Your task to perform on an android device: turn on javascript in the chrome app Image 0: 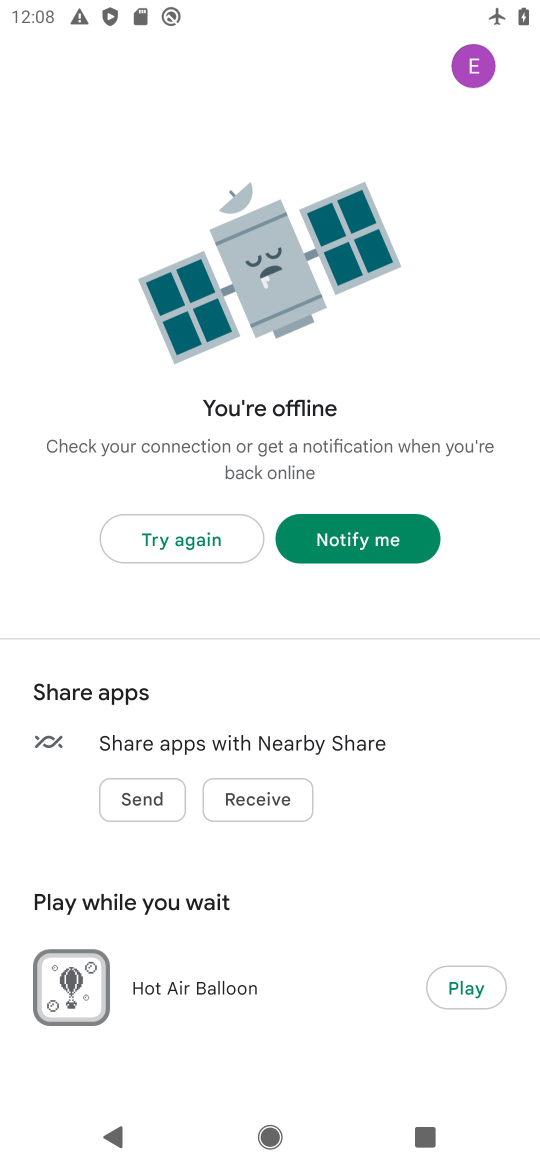
Step 0: press back button
Your task to perform on an android device: turn on javascript in the chrome app Image 1: 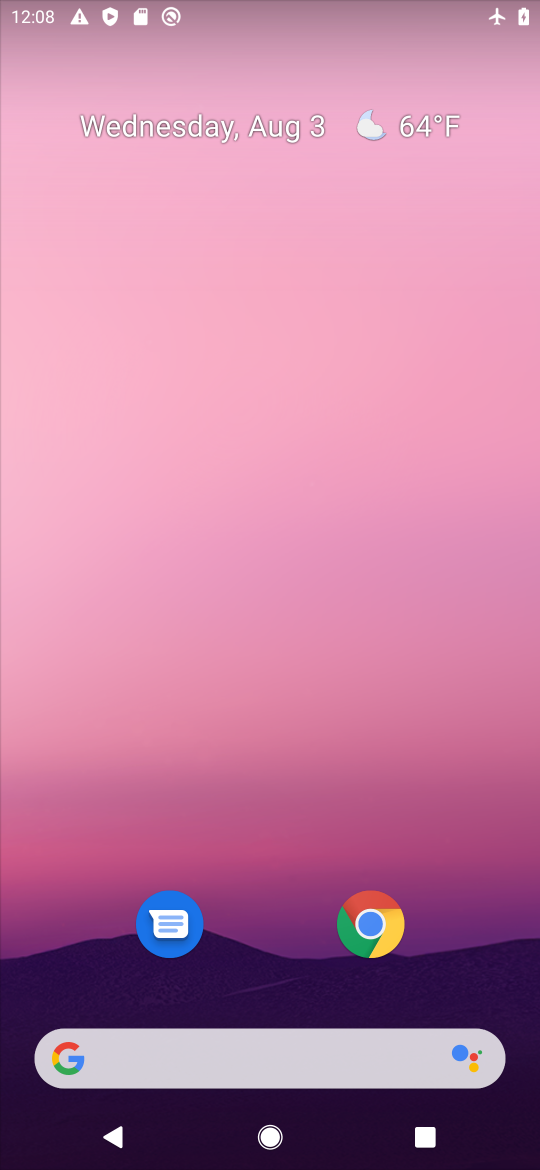
Step 1: click (374, 916)
Your task to perform on an android device: turn on javascript in the chrome app Image 2: 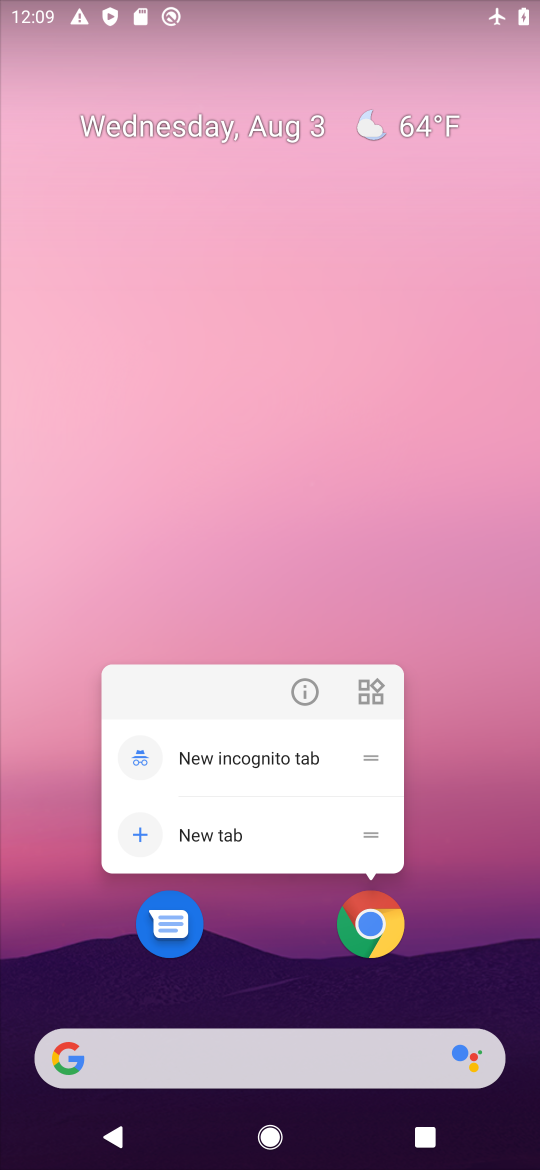
Step 2: click (369, 918)
Your task to perform on an android device: turn on javascript in the chrome app Image 3: 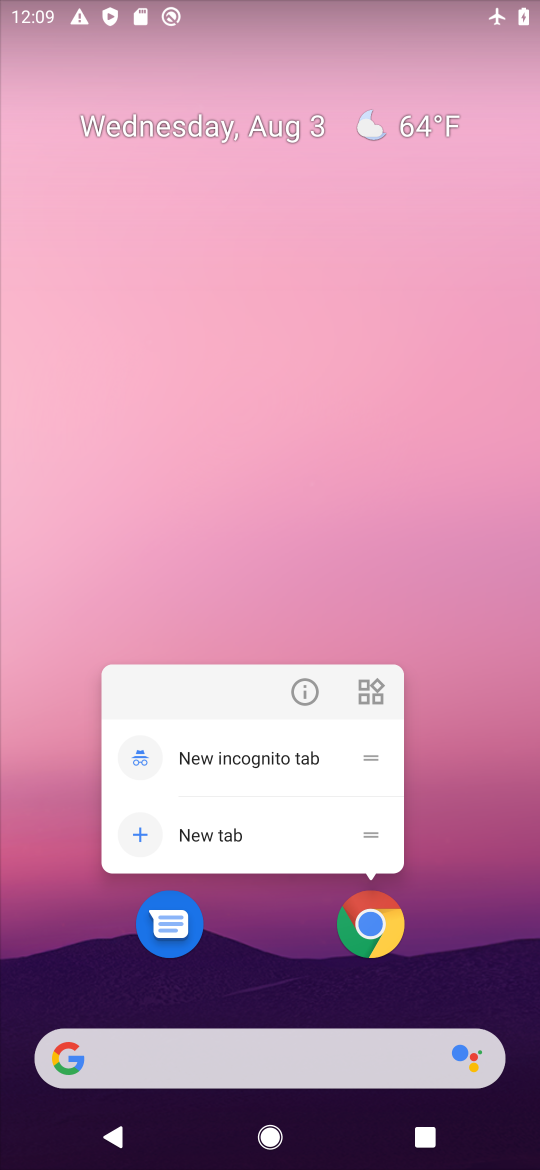
Step 3: click (371, 921)
Your task to perform on an android device: turn on javascript in the chrome app Image 4: 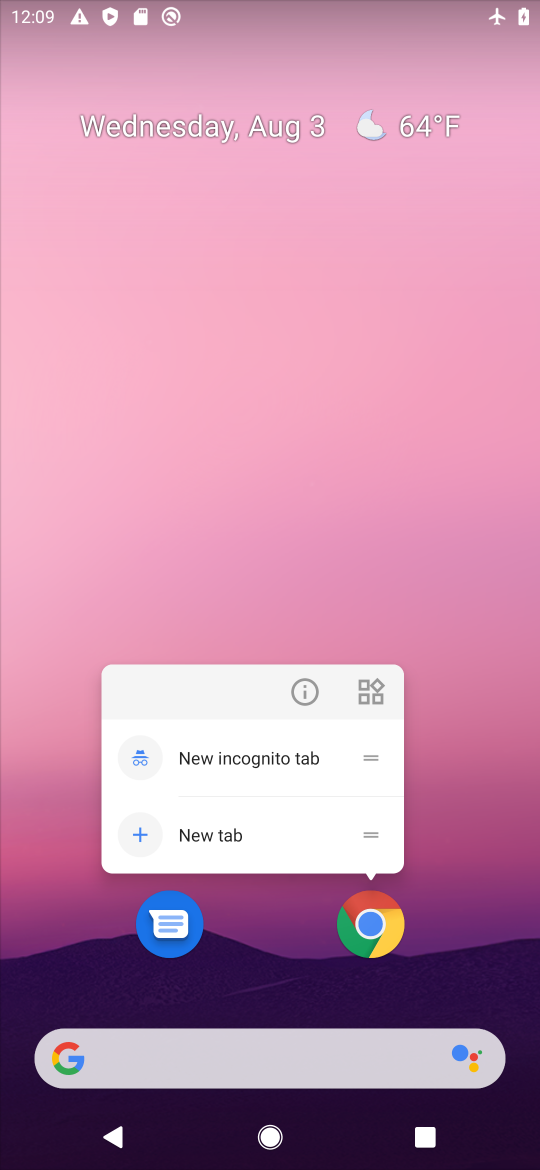
Step 4: click (378, 925)
Your task to perform on an android device: turn on javascript in the chrome app Image 5: 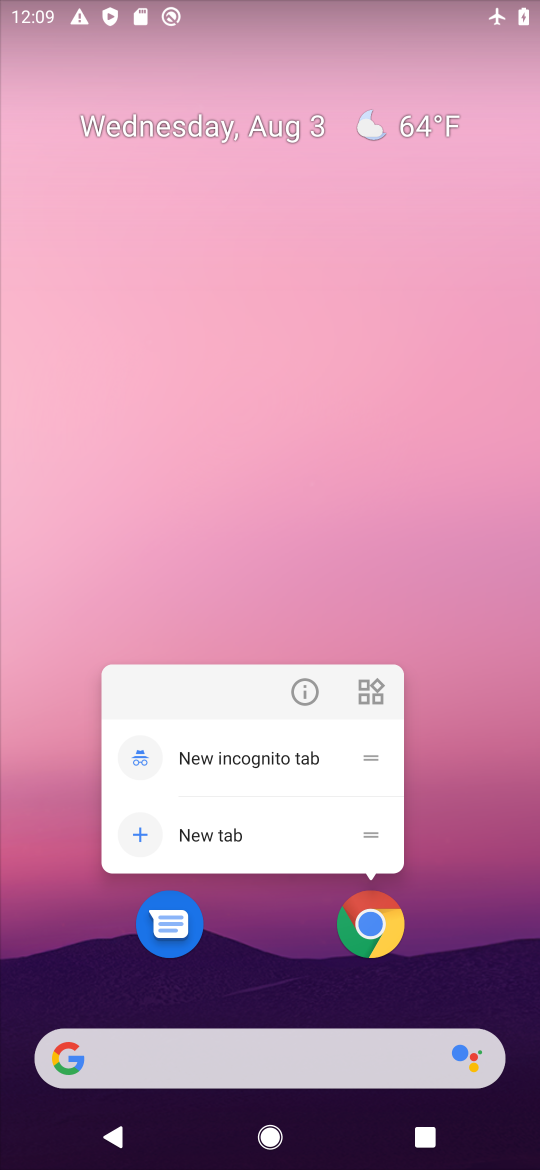
Step 5: click (375, 923)
Your task to perform on an android device: turn on javascript in the chrome app Image 6: 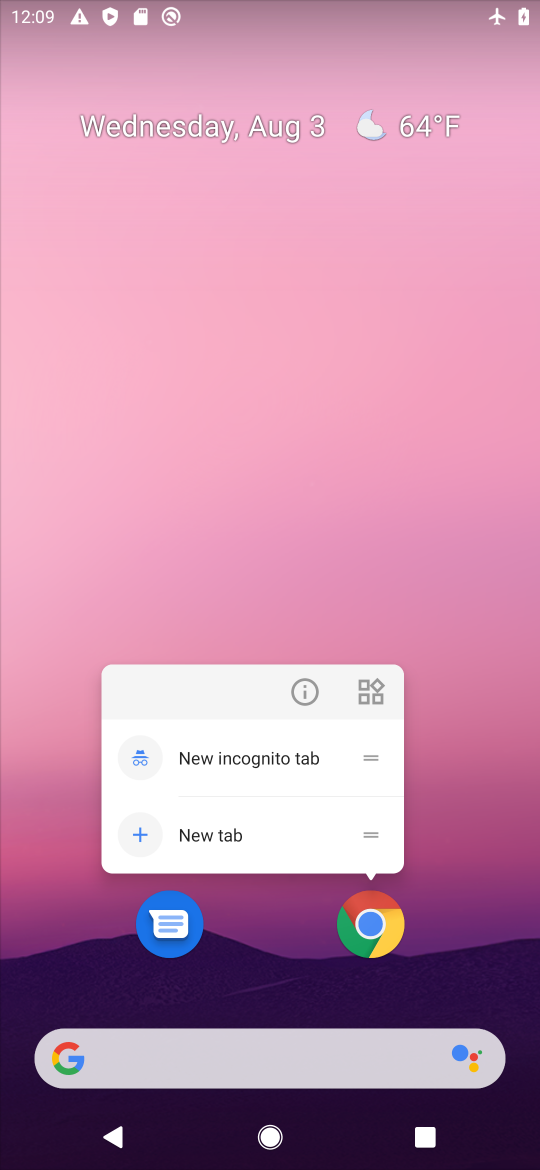
Step 6: click (371, 922)
Your task to perform on an android device: turn on javascript in the chrome app Image 7: 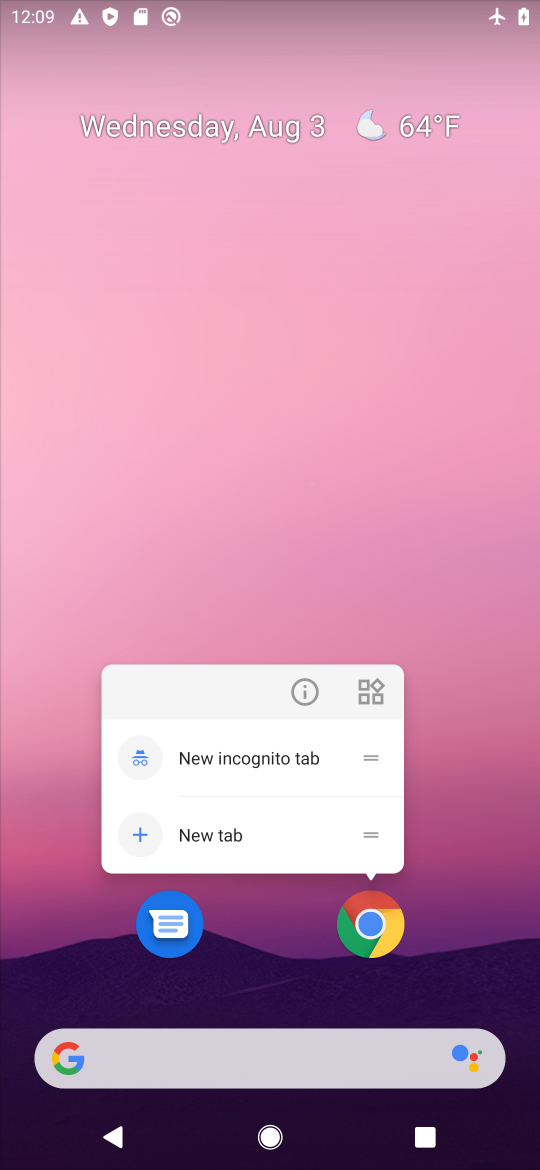
Step 7: click (372, 925)
Your task to perform on an android device: turn on javascript in the chrome app Image 8: 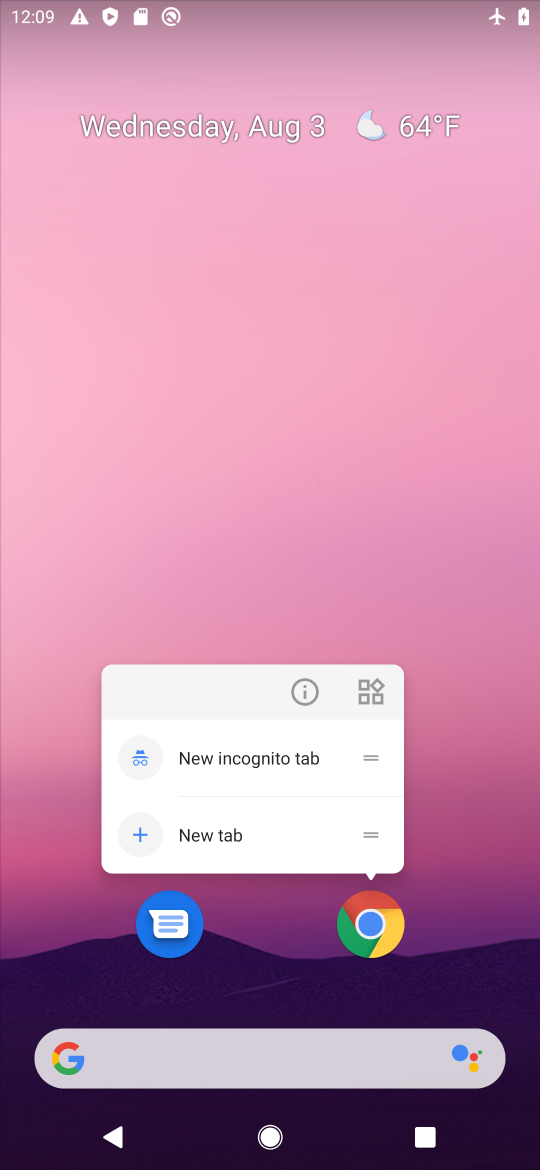
Step 8: click (380, 922)
Your task to perform on an android device: turn on javascript in the chrome app Image 9: 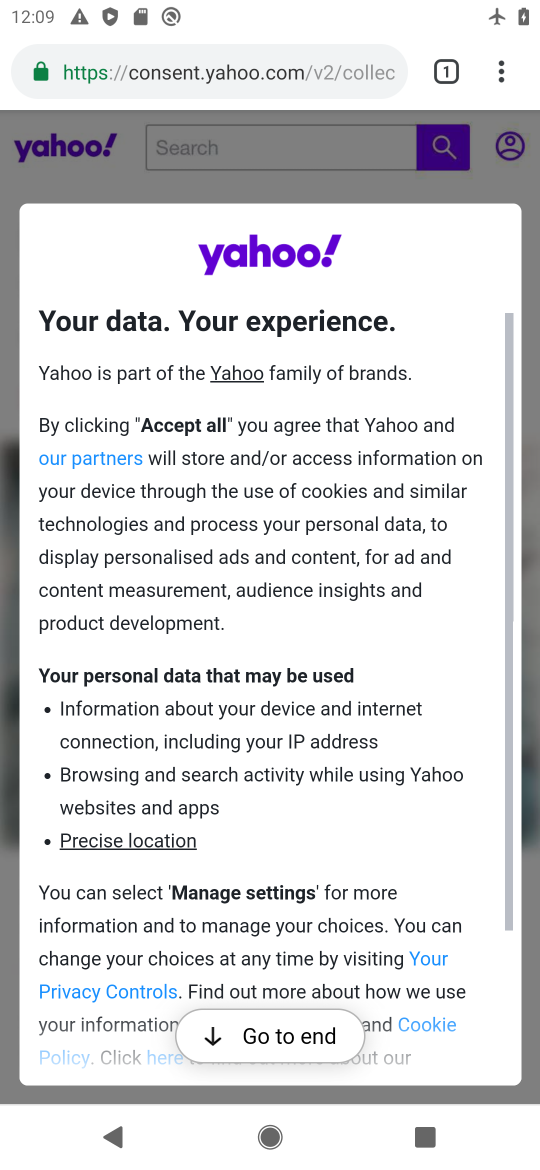
Step 9: drag from (506, 68) to (274, 793)
Your task to perform on an android device: turn on javascript in the chrome app Image 10: 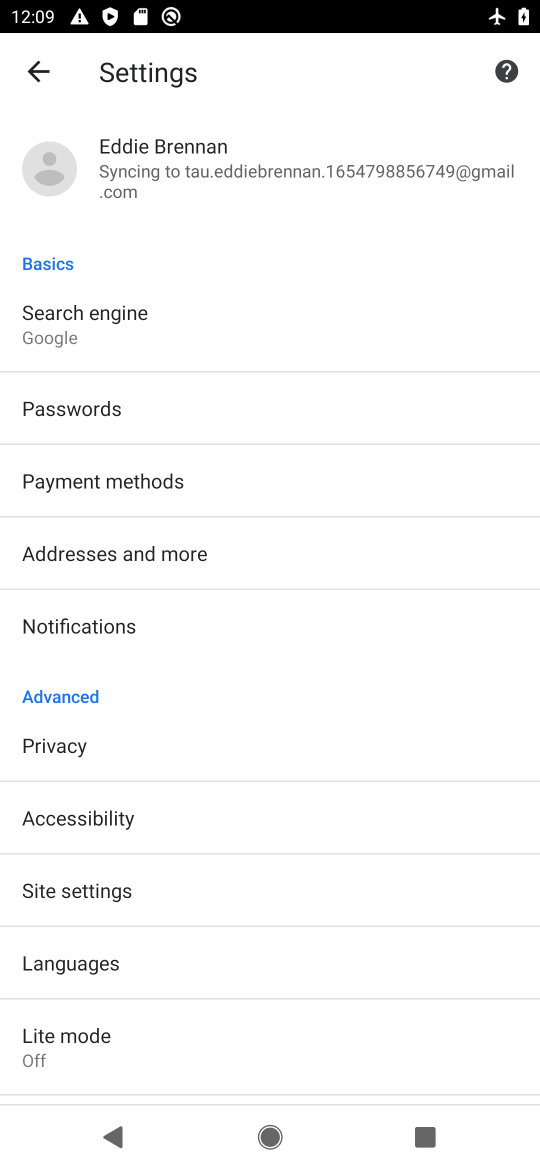
Step 10: drag from (104, 1038) to (188, 501)
Your task to perform on an android device: turn on javascript in the chrome app Image 11: 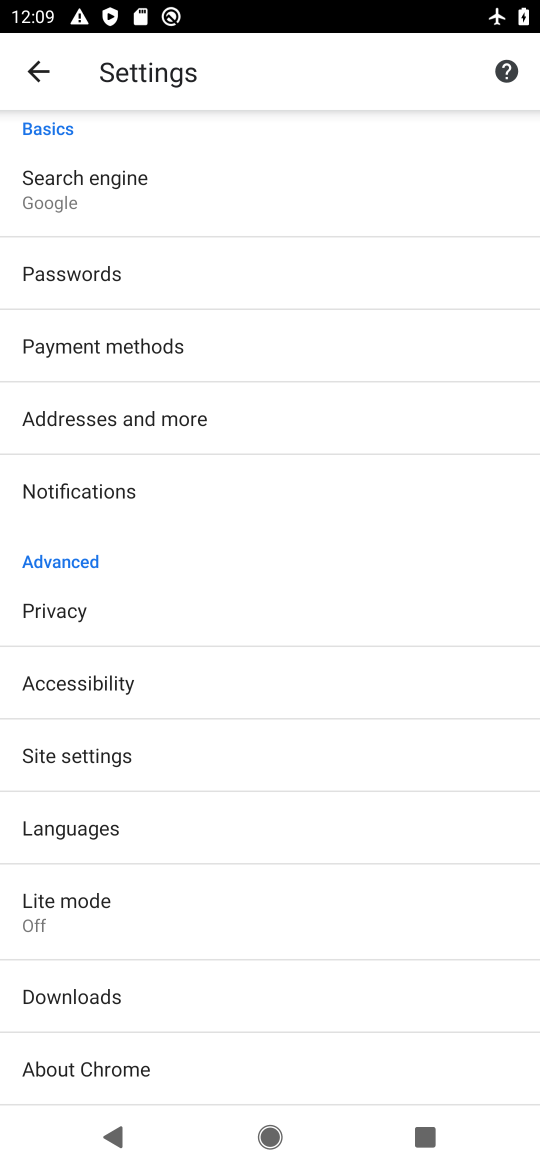
Step 11: click (94, 733)
Your task to perform on an android device: turn on javascript in the chrome app Image 12: 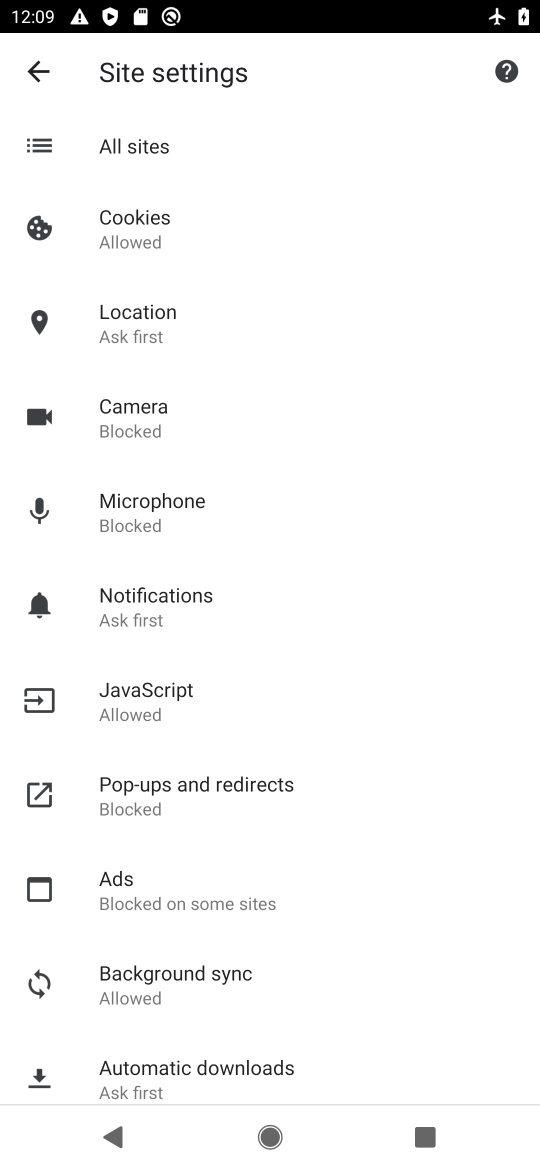
Step 12: click (151, 701)
Your task to perform on an android device: turn on javascript in the chrome app Image 13: 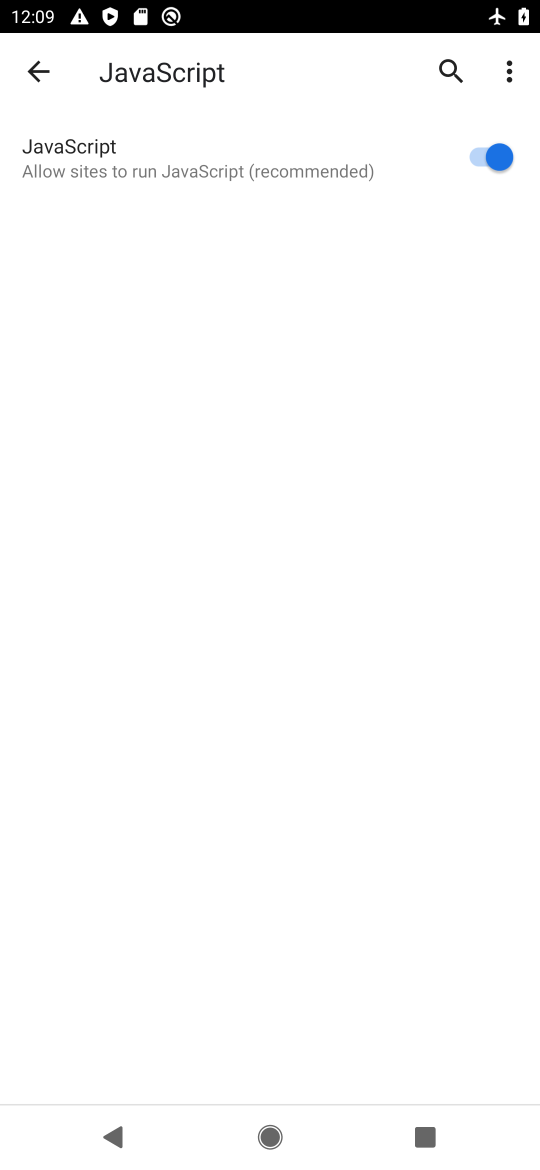
Step 13: task complete